Your task to perform on an android device: Do I have any events this weekend? Image 0: 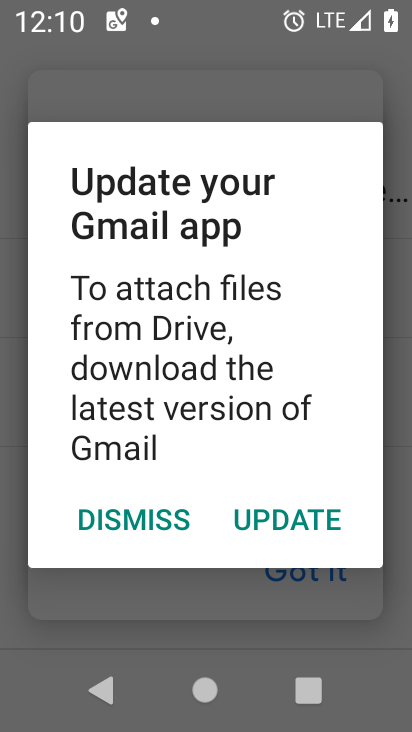
Step 0: click (329, 348)
Your task to perform on an android device: Do I have any events this weekend? Image 1: 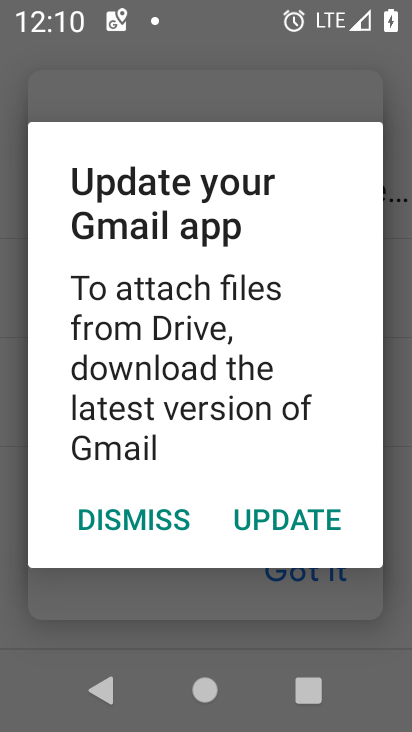
Step 1: press home button
Your task to perform on an android device: Do I have any events this weekend? Image 2: 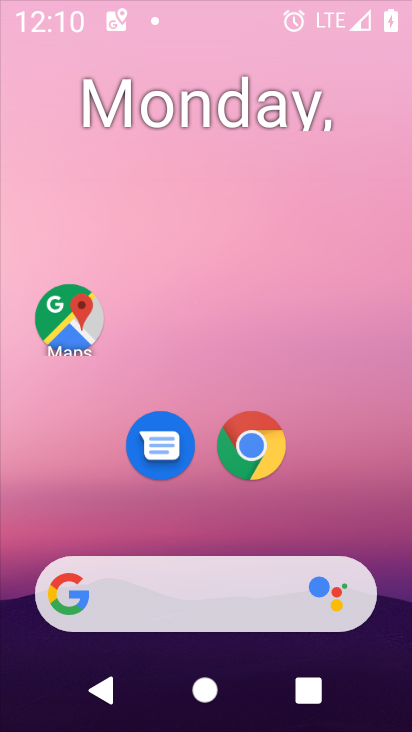
Step 2: drag from (248, 571) to (291, 215)
Your task to perform on an android device: Do I have any events this weekend? Image 3: 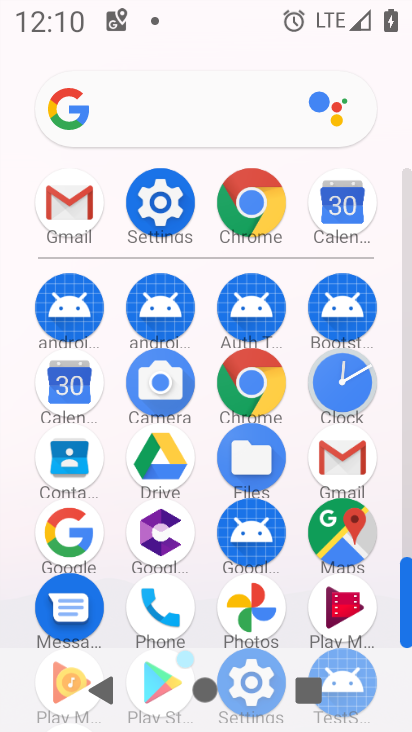
Step 3: click (65, 366)
Your task to perform on an android device: Do I have any events this weekend? Image 4: 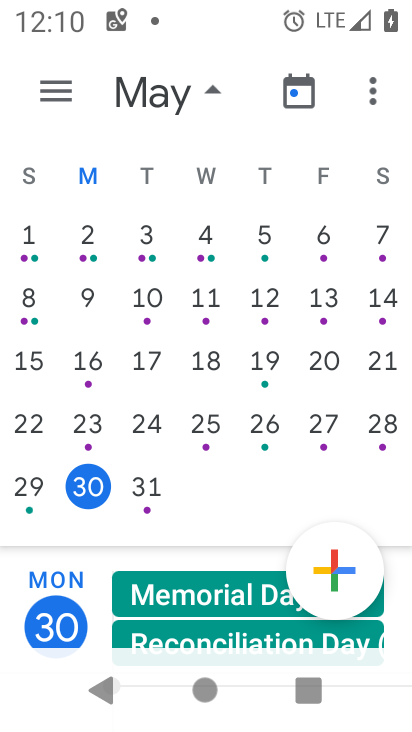
Step 4: click (153, 500)
Your task to perform on an android device: Do I have any events this weekend? Image 5: 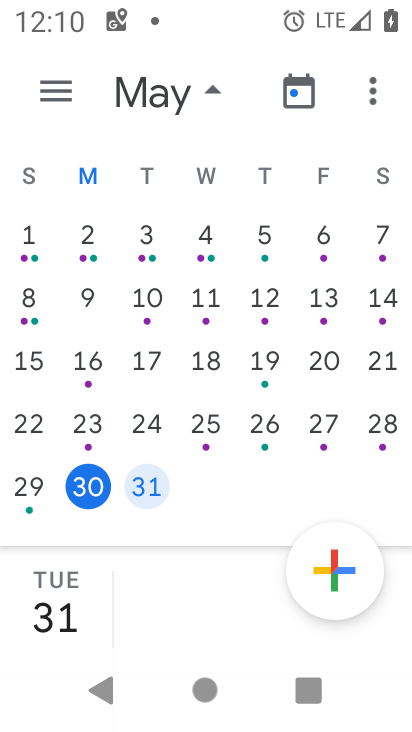
Step 5: task complete